Your task to perform on an android device: Open CNN.com Image 0: 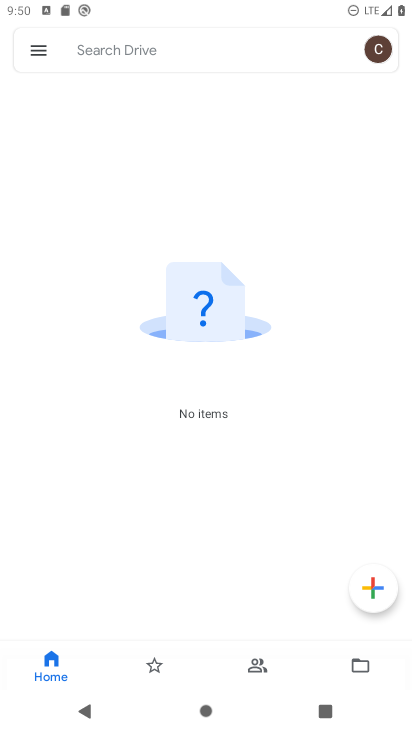
Step 0: press home button
Your task to perform on an android device: Open CNN.com Image 1: 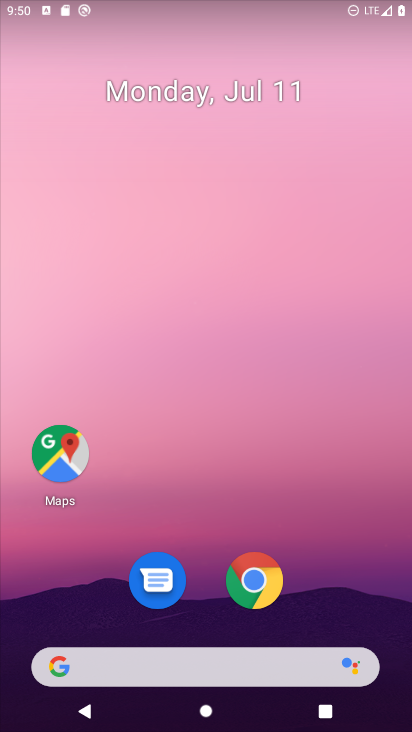
Step 1: click (267, 669)
Your task to perform on an android device: Open CNN.com Image 2: 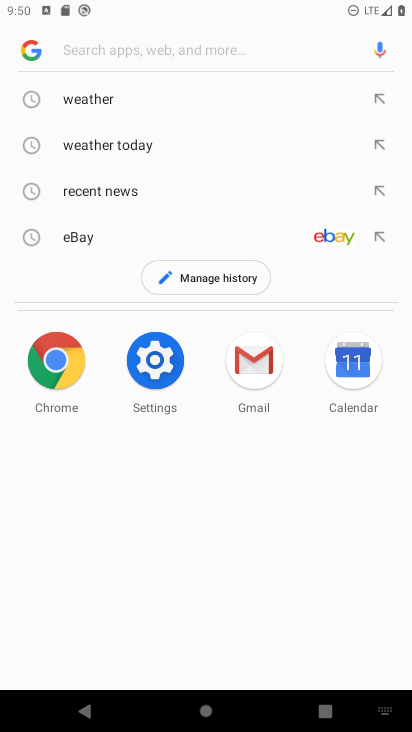
Step 2: type "cnn.com"
Your task to perform on an android device: Open CNN.com Image 3: 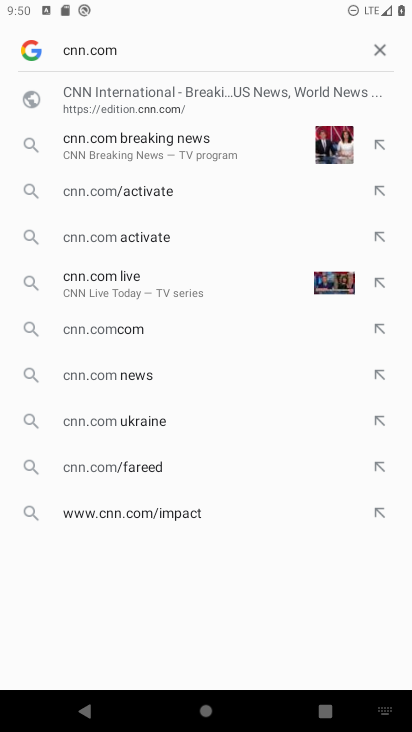
Step 3: click (133, 97)
Your task to perform on an android device: Open CNN.com Image 4: 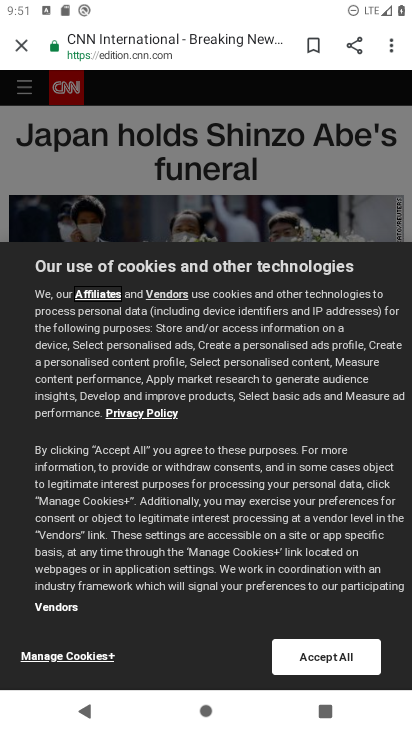
Step 4: click (328, 662)
Your task to perform on an android device: Open CNN.com Image 5: 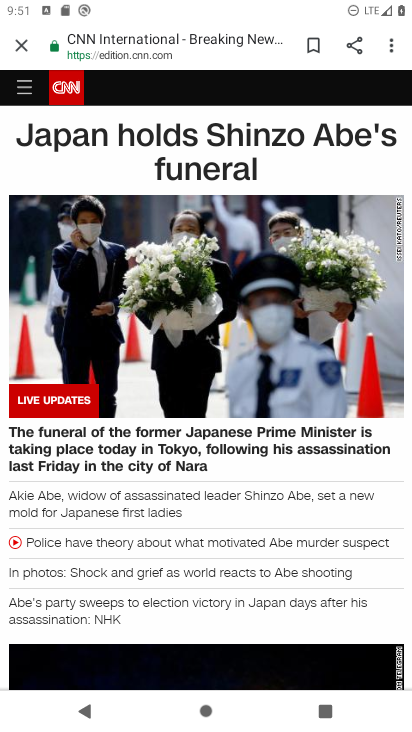
Step 5: task complete